Your task to perform on an android device: change timer sound Image 0: 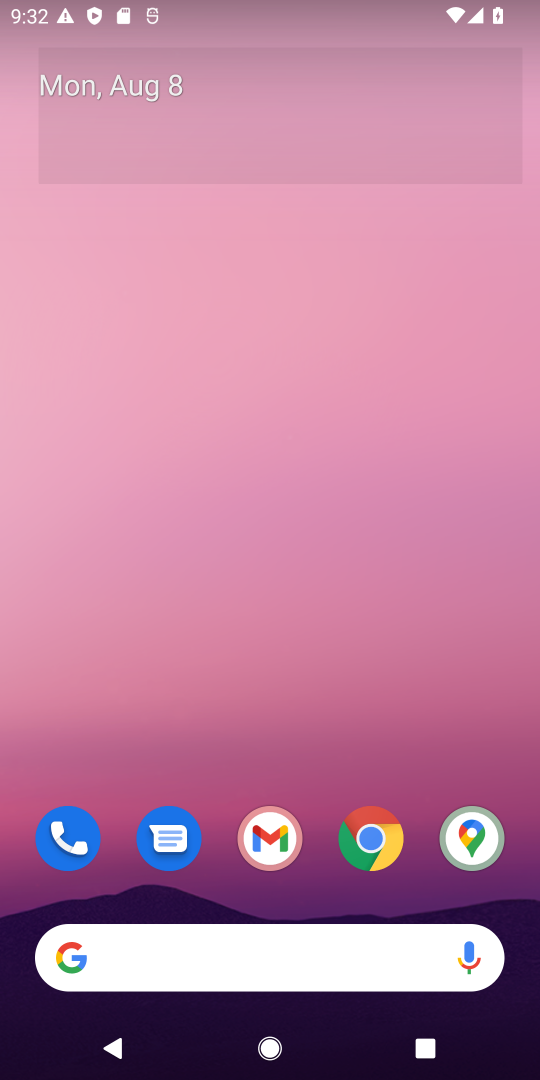
Step 0: press home button
Your task to perform on an android device: change timer sound Image 1: 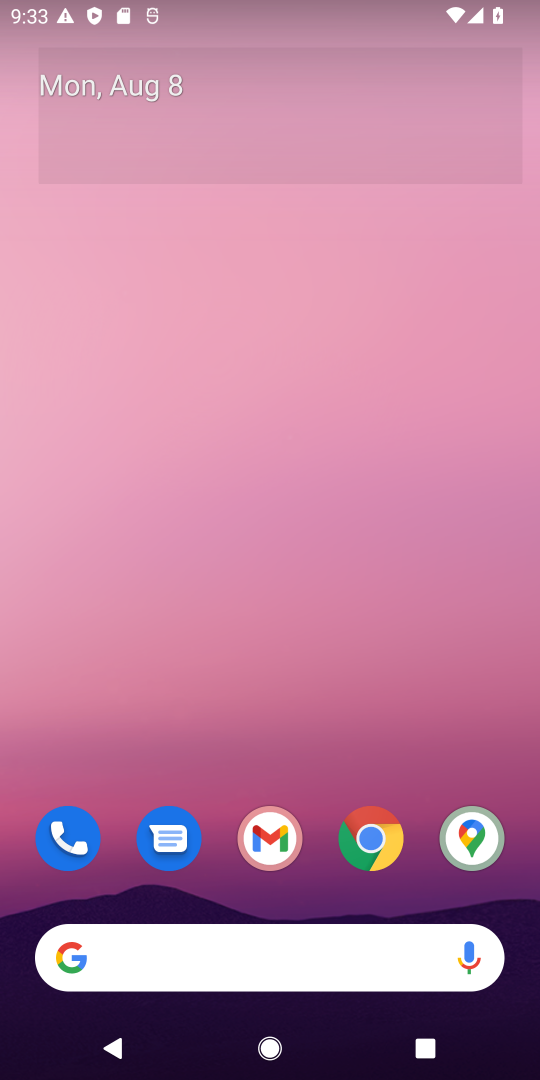
Step 1: drag from (338, 869) to (434, 85)
Your task to perform on an android device: change timer sound Image 2: 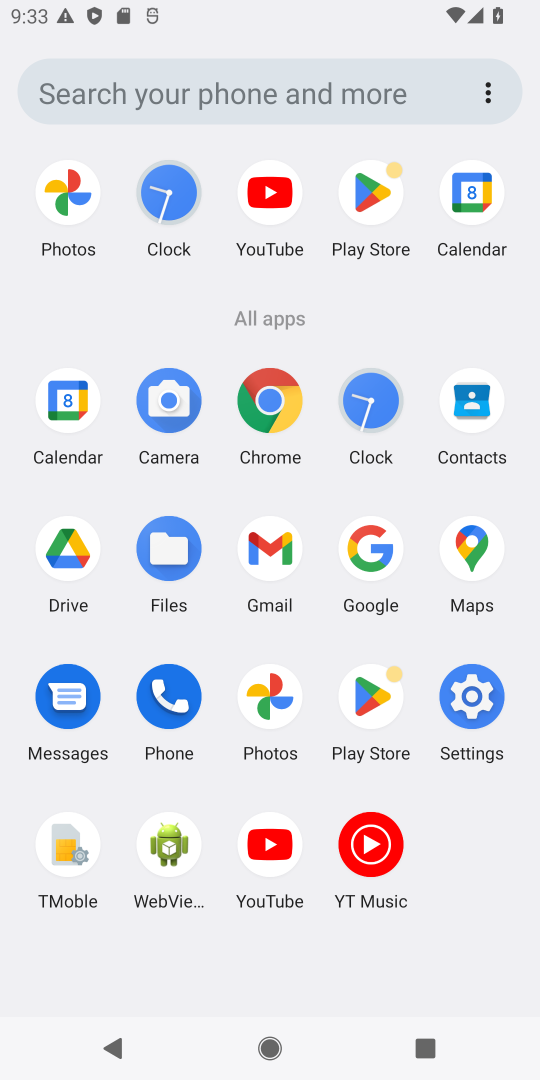
Step 2: click (179, 187)
Your task to perform on an android device: change timer sound Image 3: 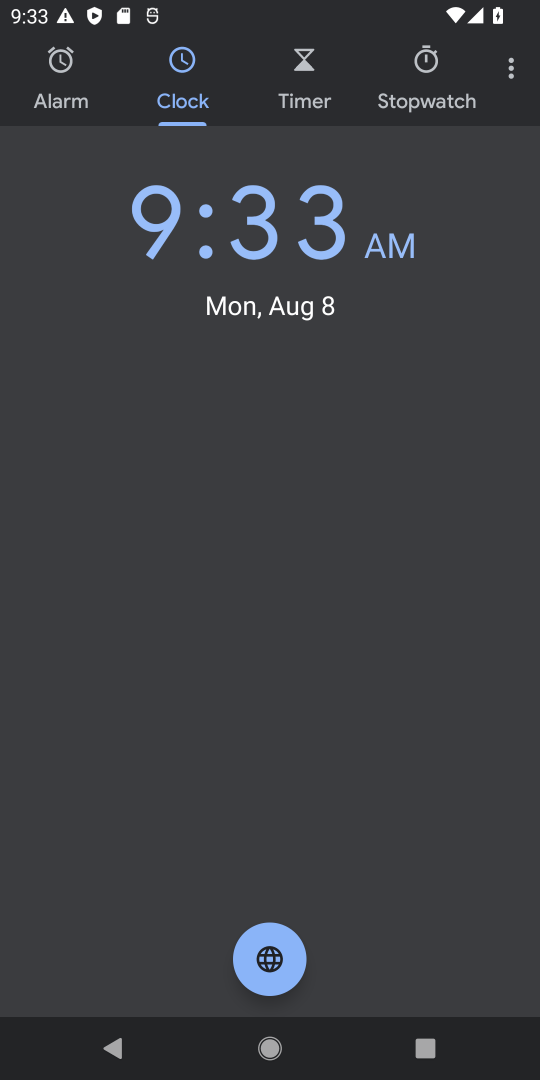
Step 3: drag from (307, 73) to (526, 259)
Your task to perform on an android device: change timer sound Image 4: 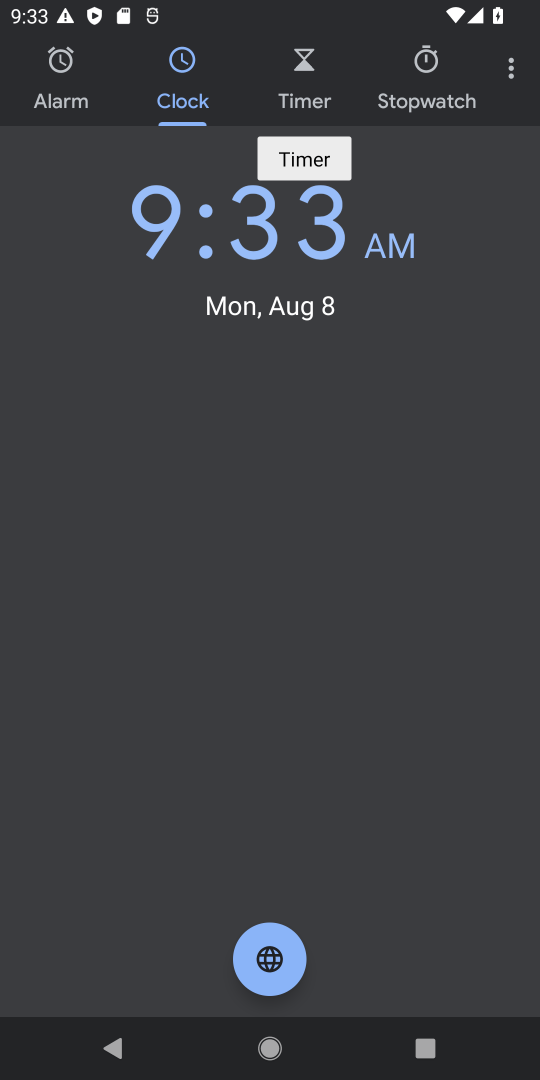
Step 4: click (496, 56)
Your task to perform on an android device: change timer sound Image 5: 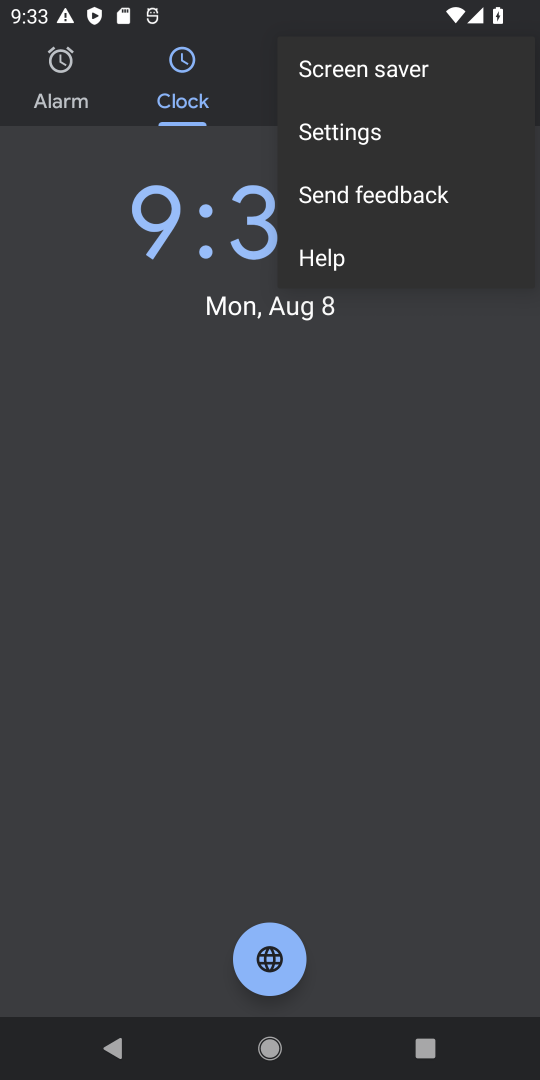
Step 5: click (348, 146)
Your task to perform on an android device: change timer sound Image 6: 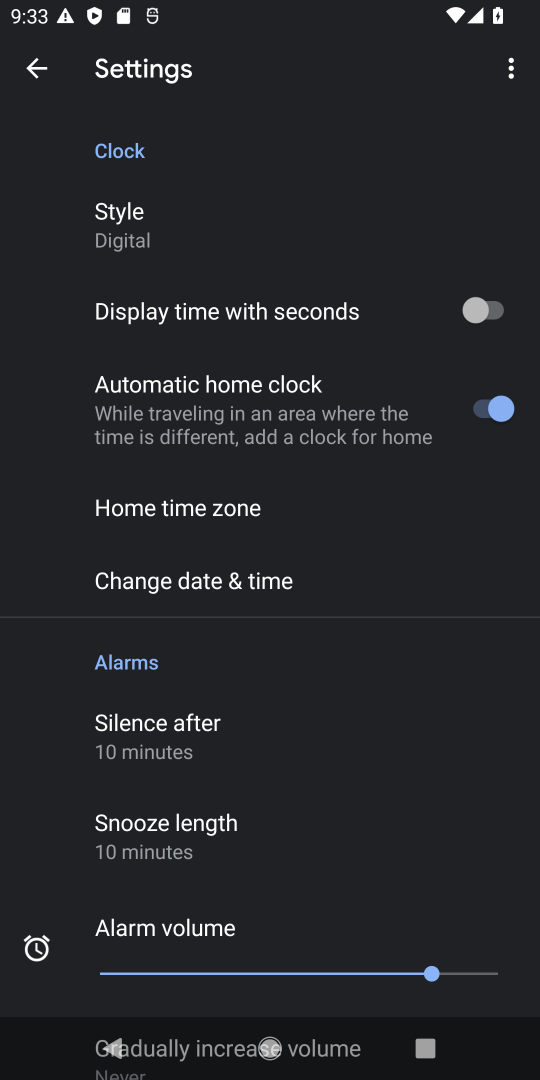
Step 6: drag from (351, 843) to (326, 196)
Your task to perform on an android device: change timer sound Image 7: 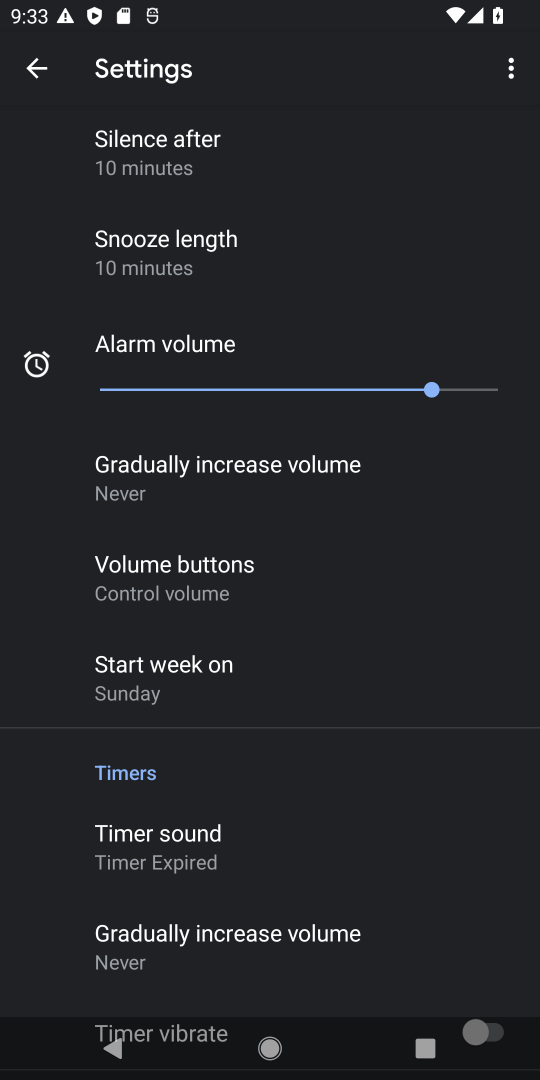
Step 7: click (146, 855)
Your task to perform on an android device: change timer sound Image 8: 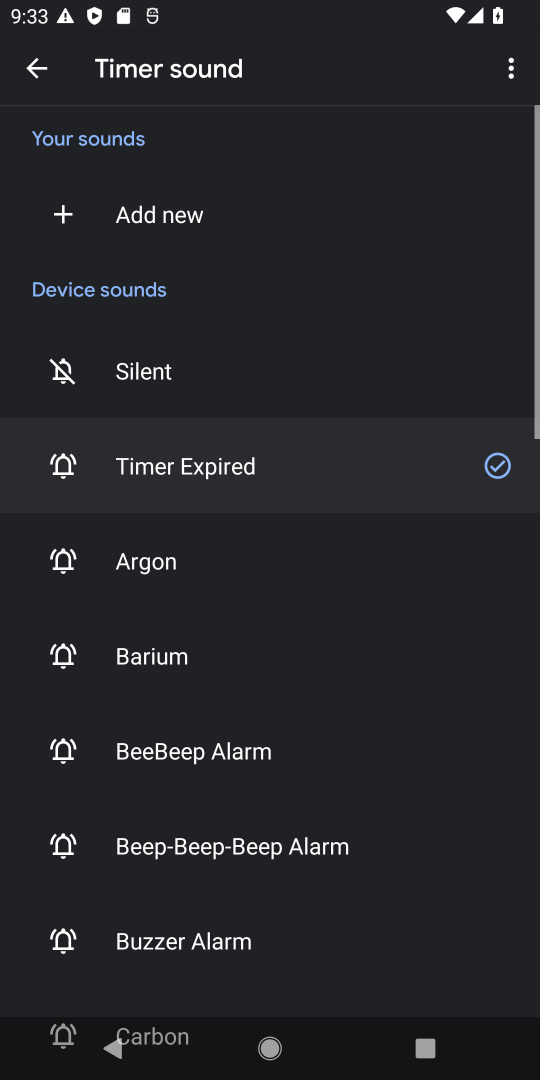
Step 8: click (146, 855)
Your task to perform on an android device: change timer sound Image 9: 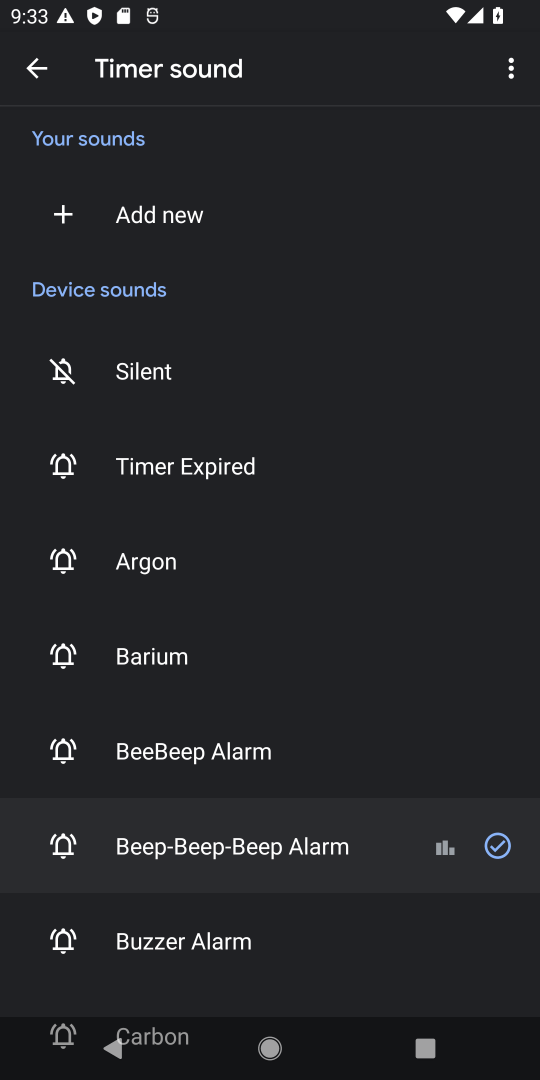
Step 9: task complete